Your task to perform on an android device: Clear the shopping cart on target.com. Add macbook air to the cart on target.com Image 0: 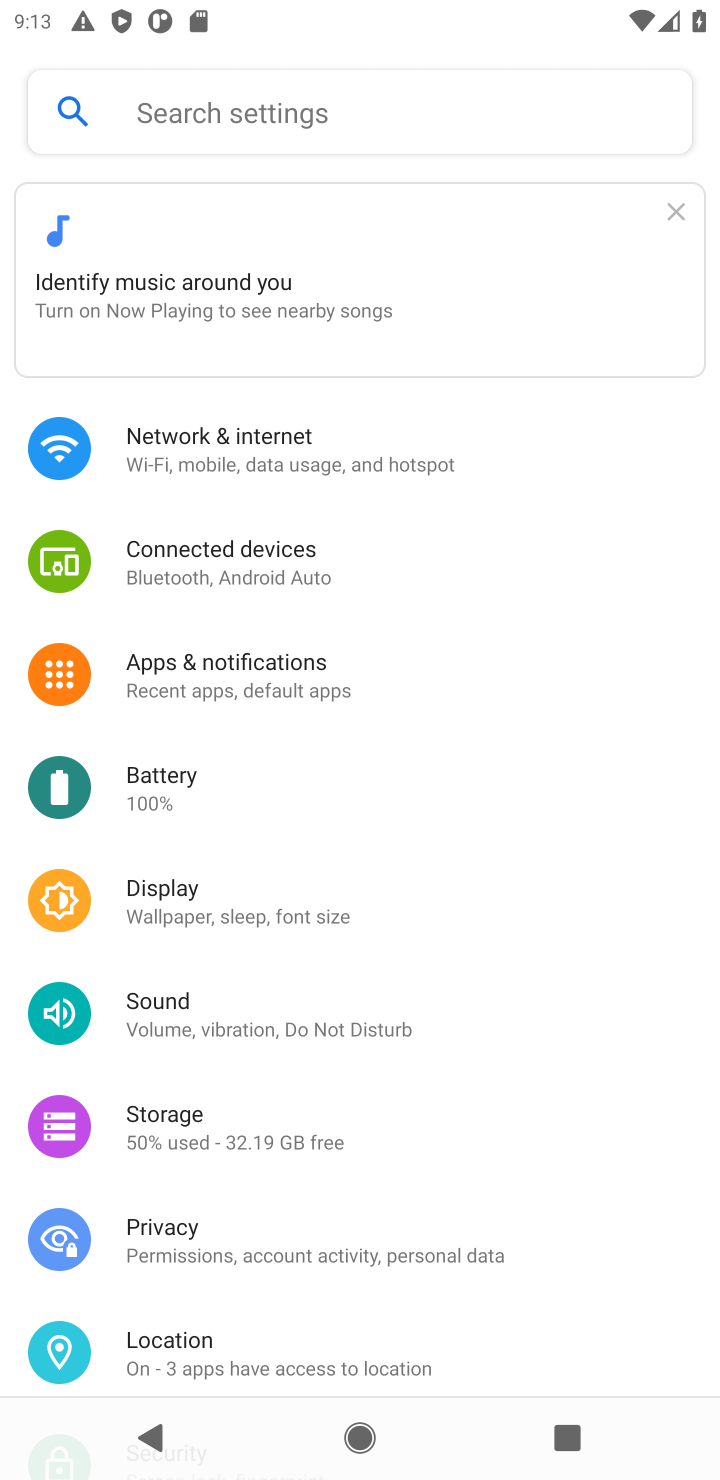
Step 0: press home button
Your task to perform on an android device: Clear the shopping cart on target.com. Add macbook air to the cart on target.com Image 1: 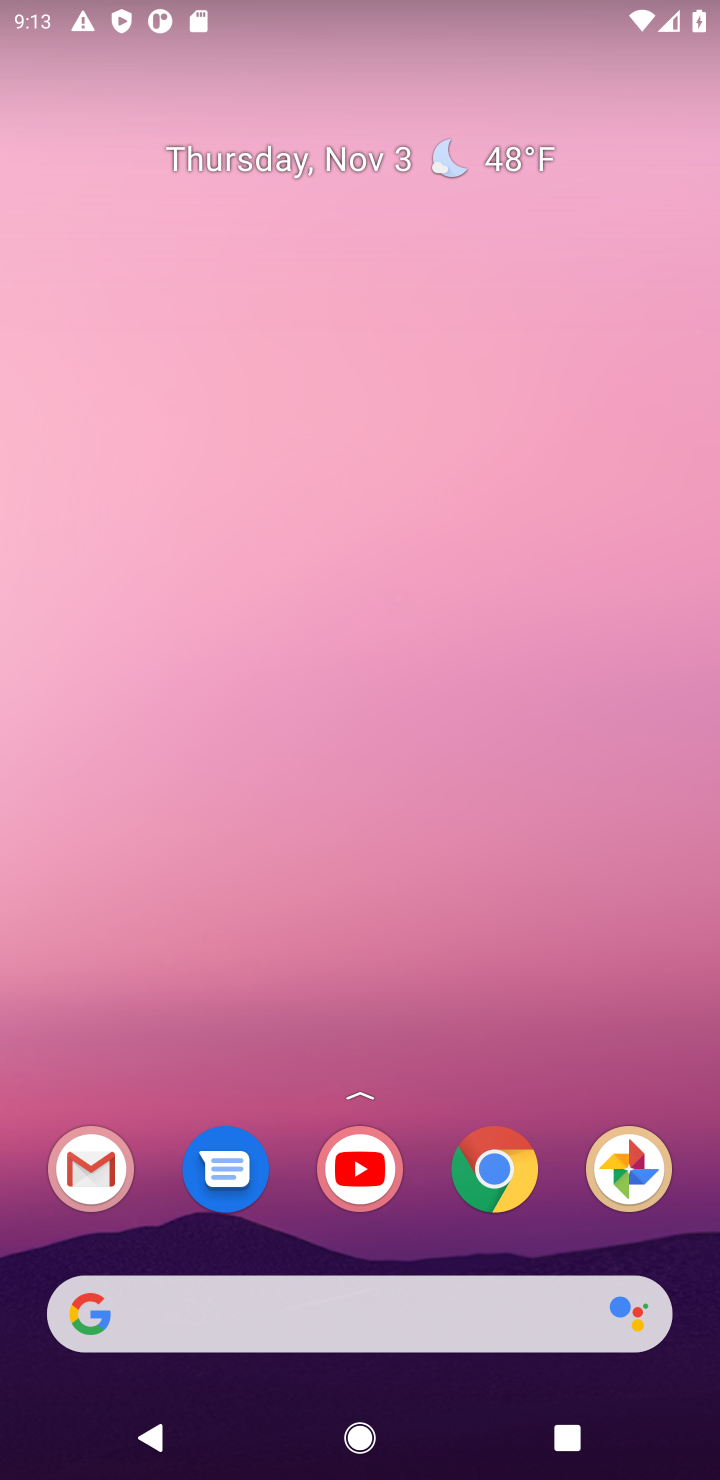
Step 1: drag from (421, 1262) to (283, 235)
Your task to perform on an android device: Clear the shopping cart on target.com. Add macbook air to the cart on target.com Image 2: 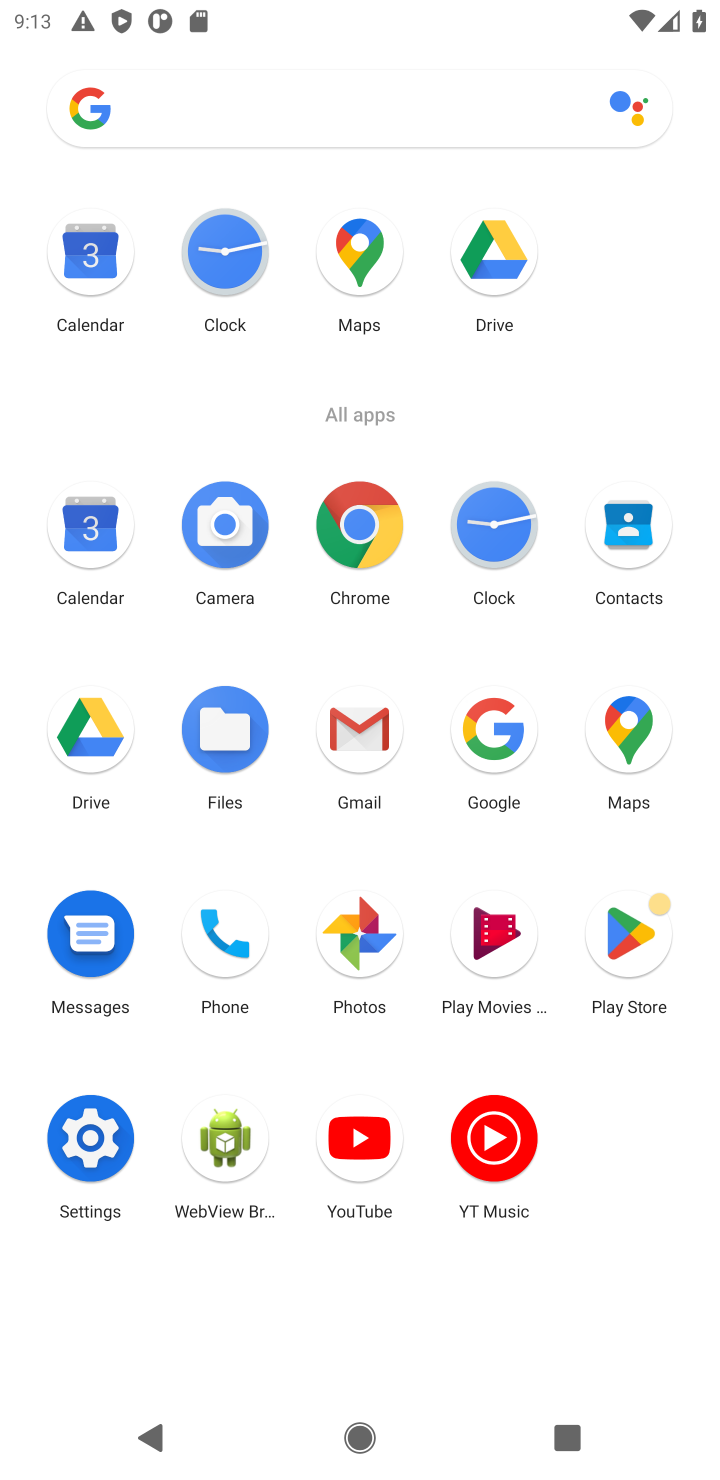
Step 2: click (366, 528)
Your task to perform on an android device: Clear the shopping cart on target.com. Add macbook air to the cart on target.com Image 3: 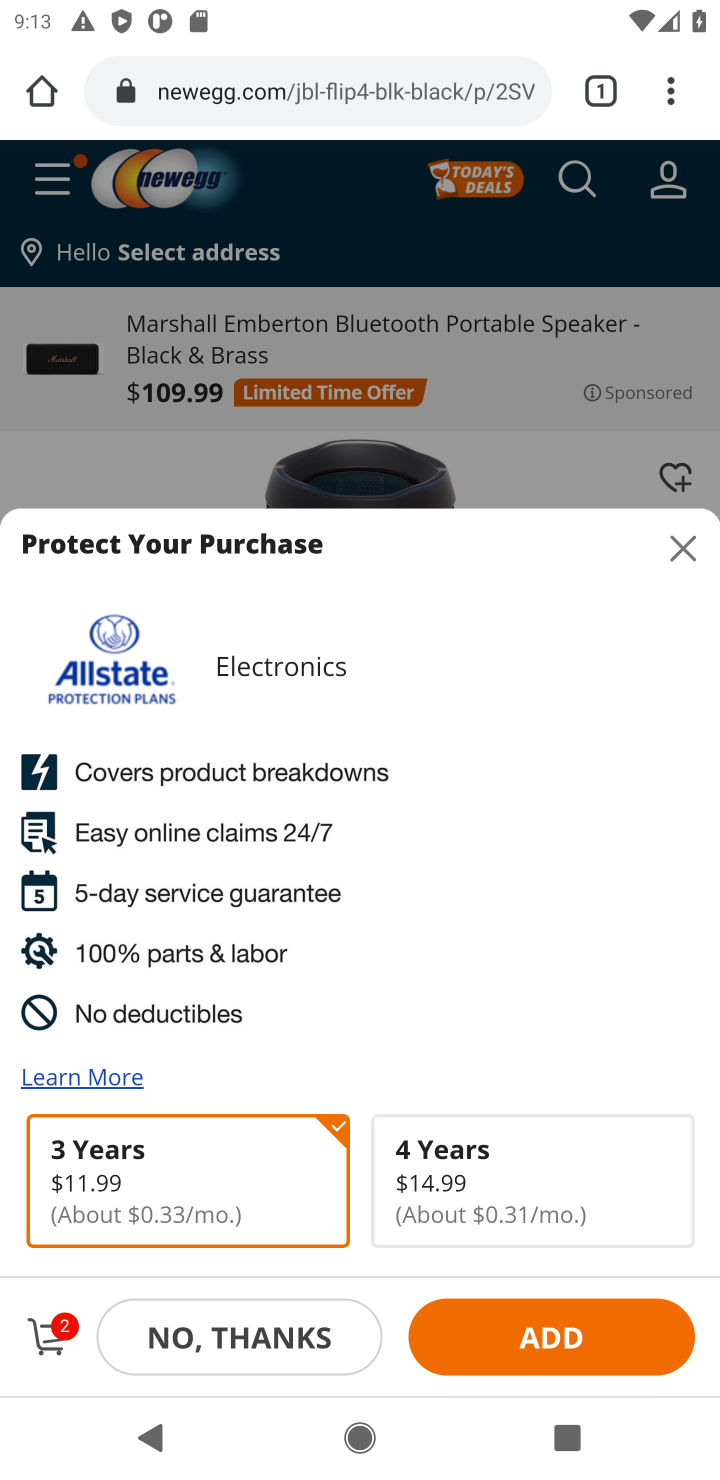
Step 3: click (378, 89)
Your task to perform on an android device: Clear the shopping cart on target.com. Add macbook air to the cart on target.com Image 4: 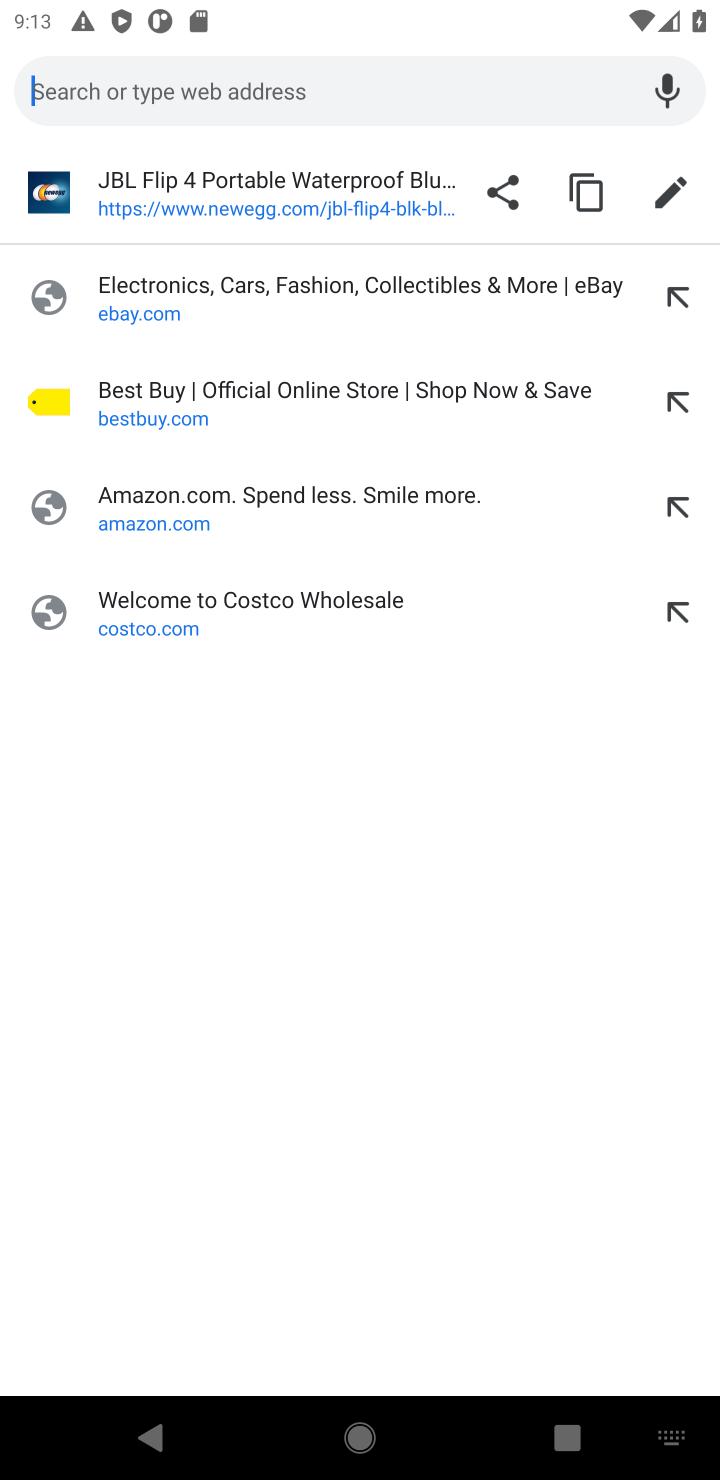
Step 4: type "target.com"
Your task to perform on an android device: Clear the shopping cart on target.com. Add macbook air to the cart on target.com Image 5: 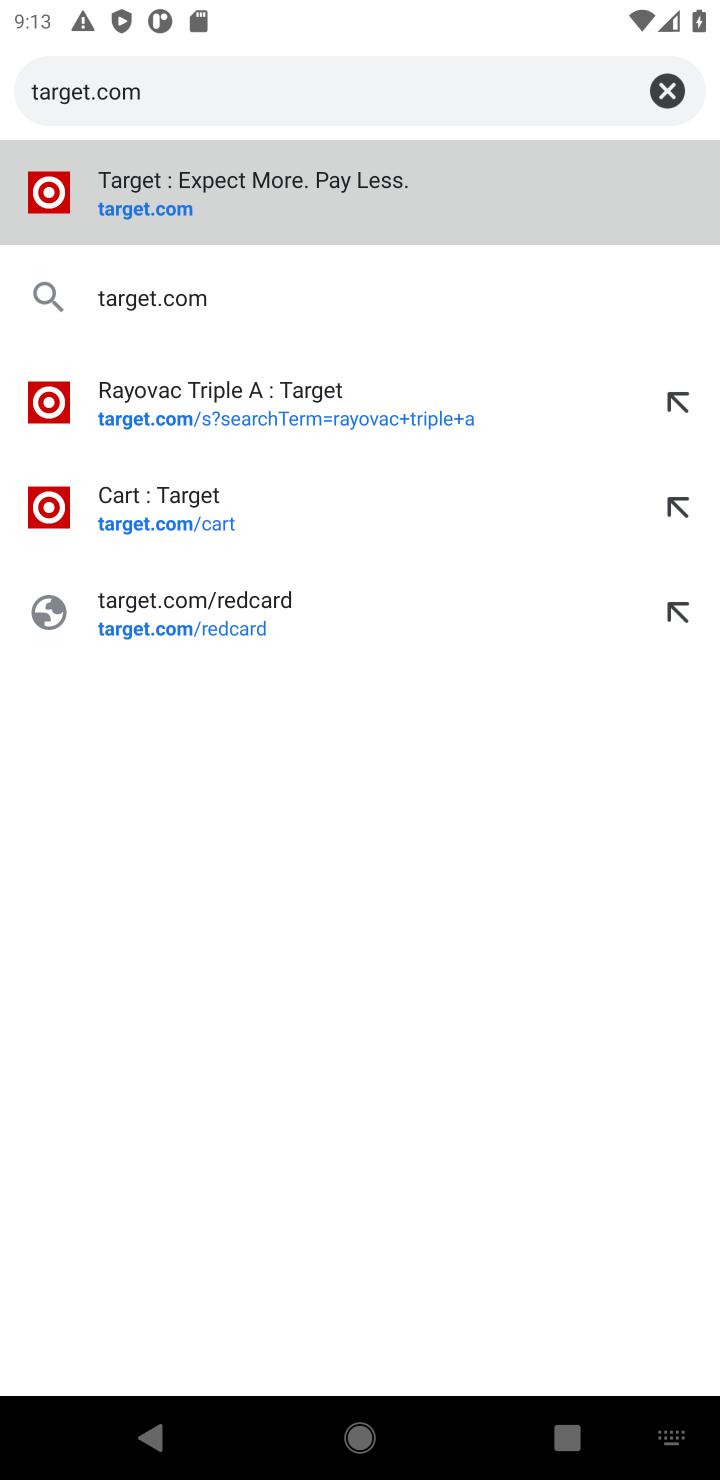
Step 5: press enter
Your task to perform on an android device: Clear the shopping cart on target.com. Add macbook air to the cart on target.com Image 6: 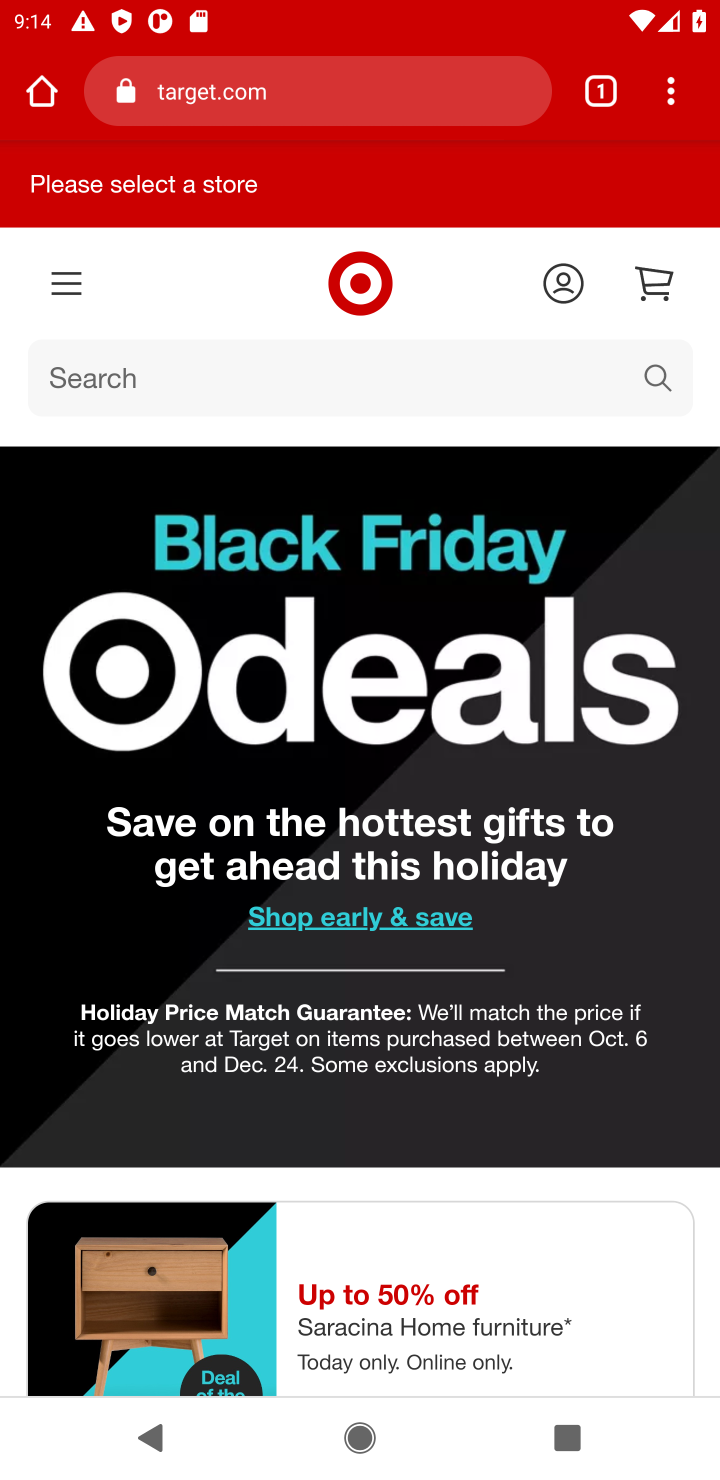
Step 6: click (377, 409)
Your task to perform on an android device: Clear the shopping cart on target.com. Add macbook air to the cart on target.com Image 7: 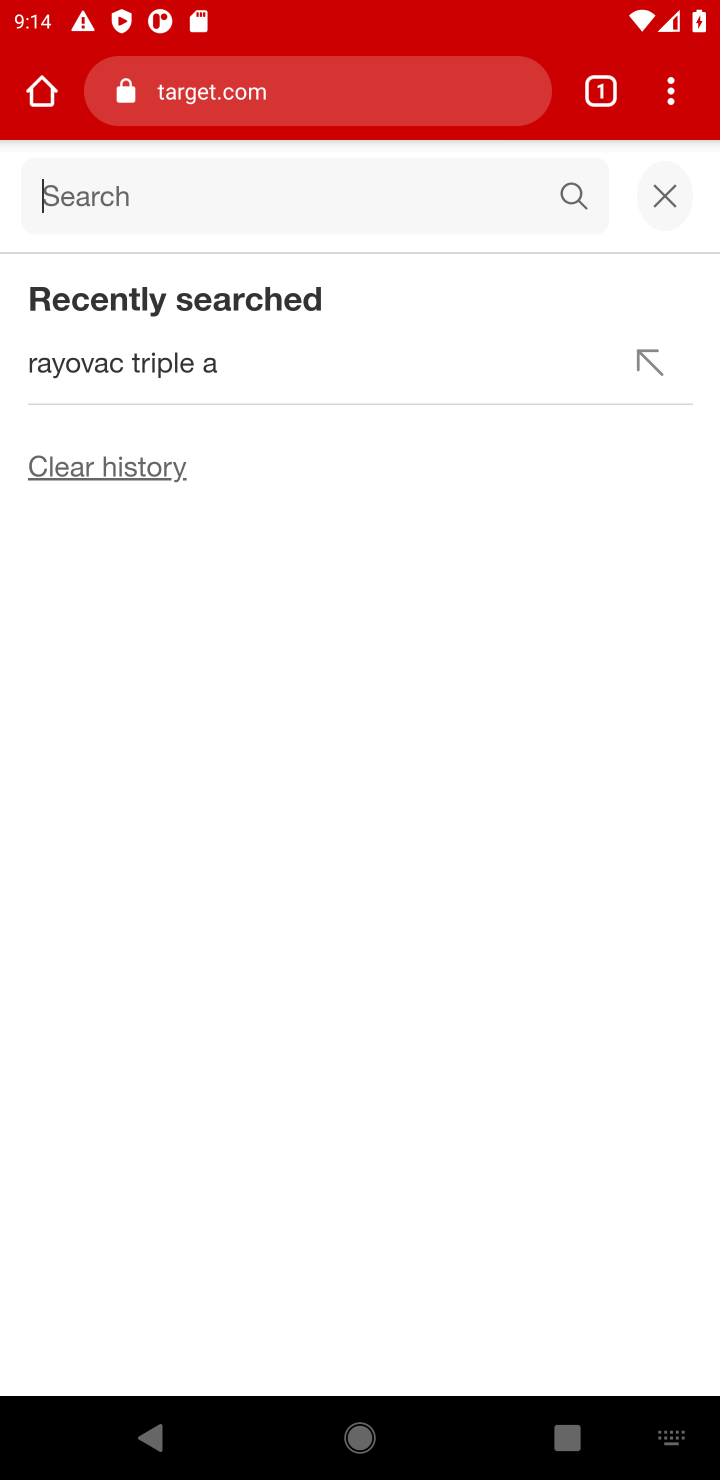
Step 7: click (668, 203)
Your task to perform on an android device: Clear the shopping cart on target.com. Add macbook air to the cart on target.com Image 8: 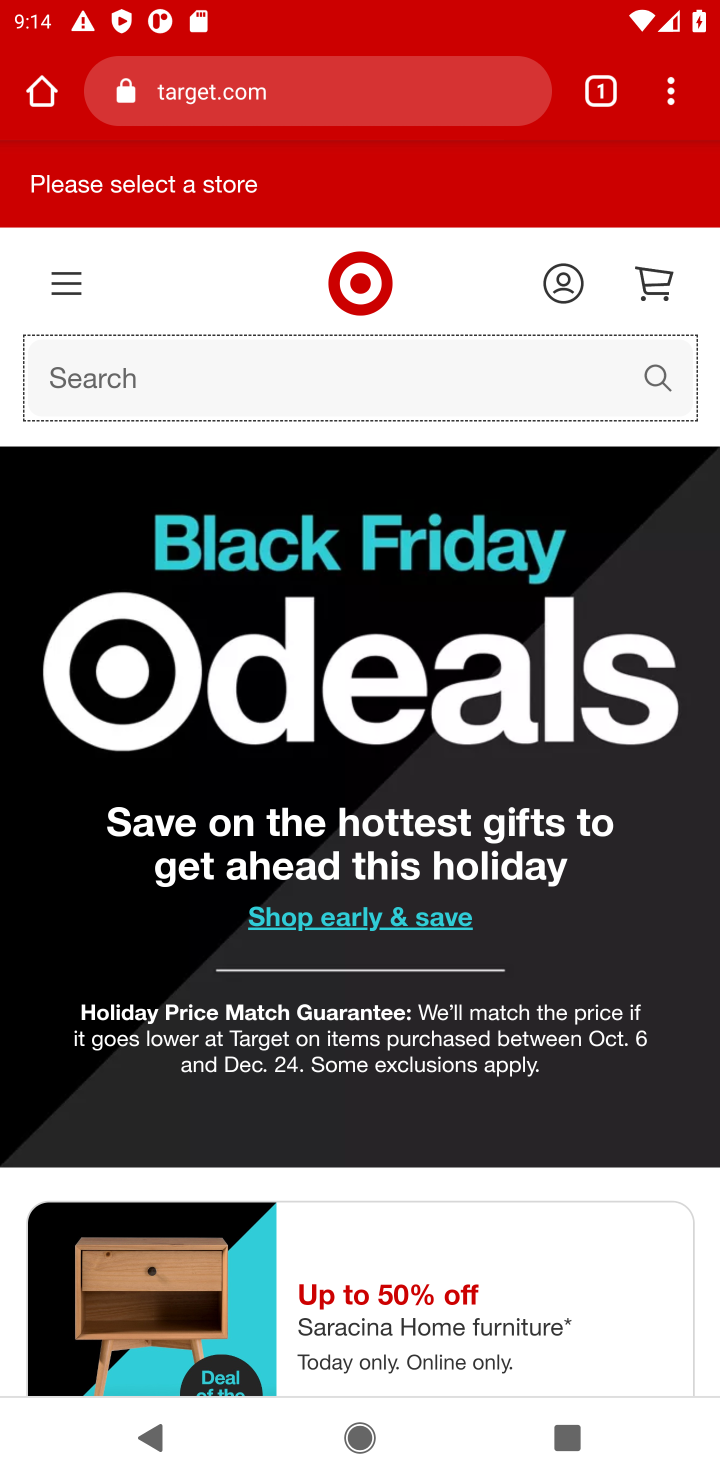
Step 8: click (662, 281)
Your task to perform on an android device: Clear the shopping cart on target.com. Add macbook air to the cart on target.com Image 9: 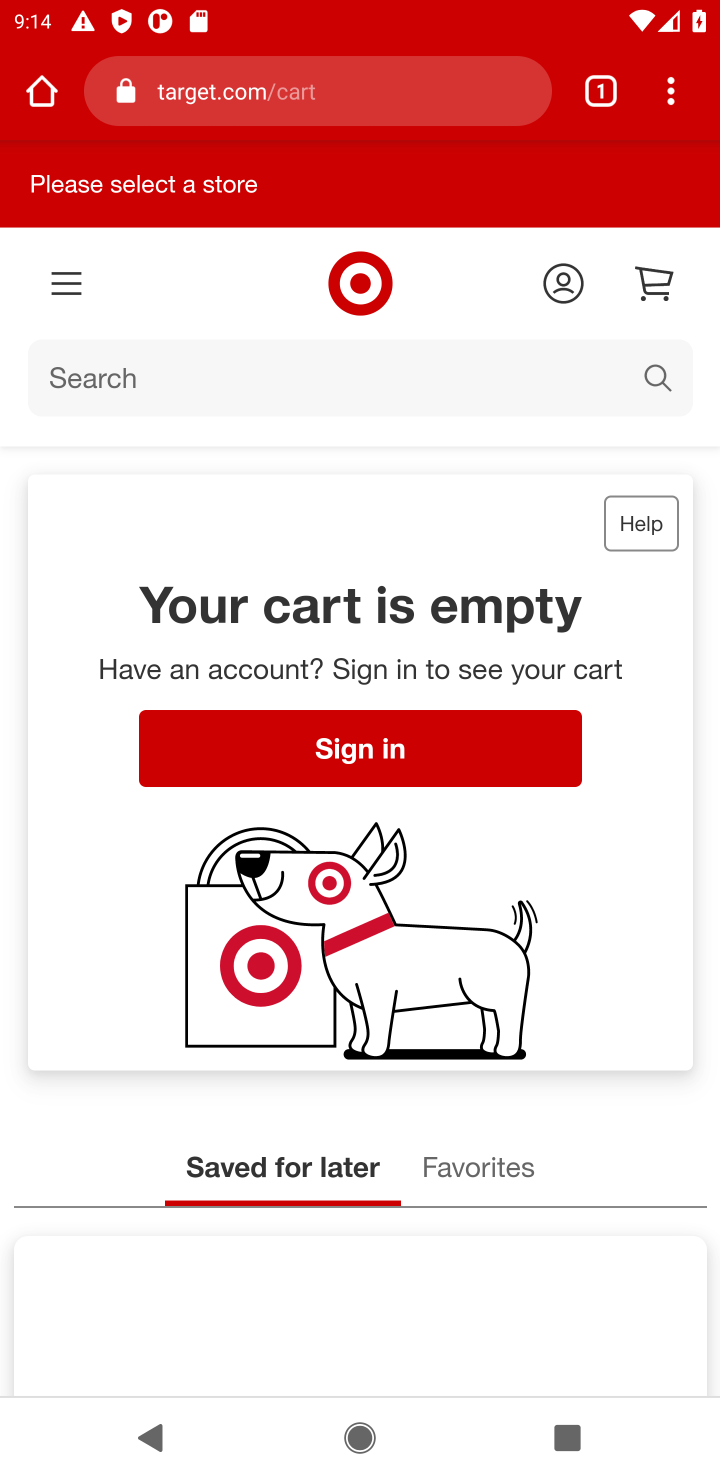
Step 9: click (156, 369)
Your task to perform on an android device: Clear the shopping cart on target.com. Add macbook air to the cart on target.com Image 10: 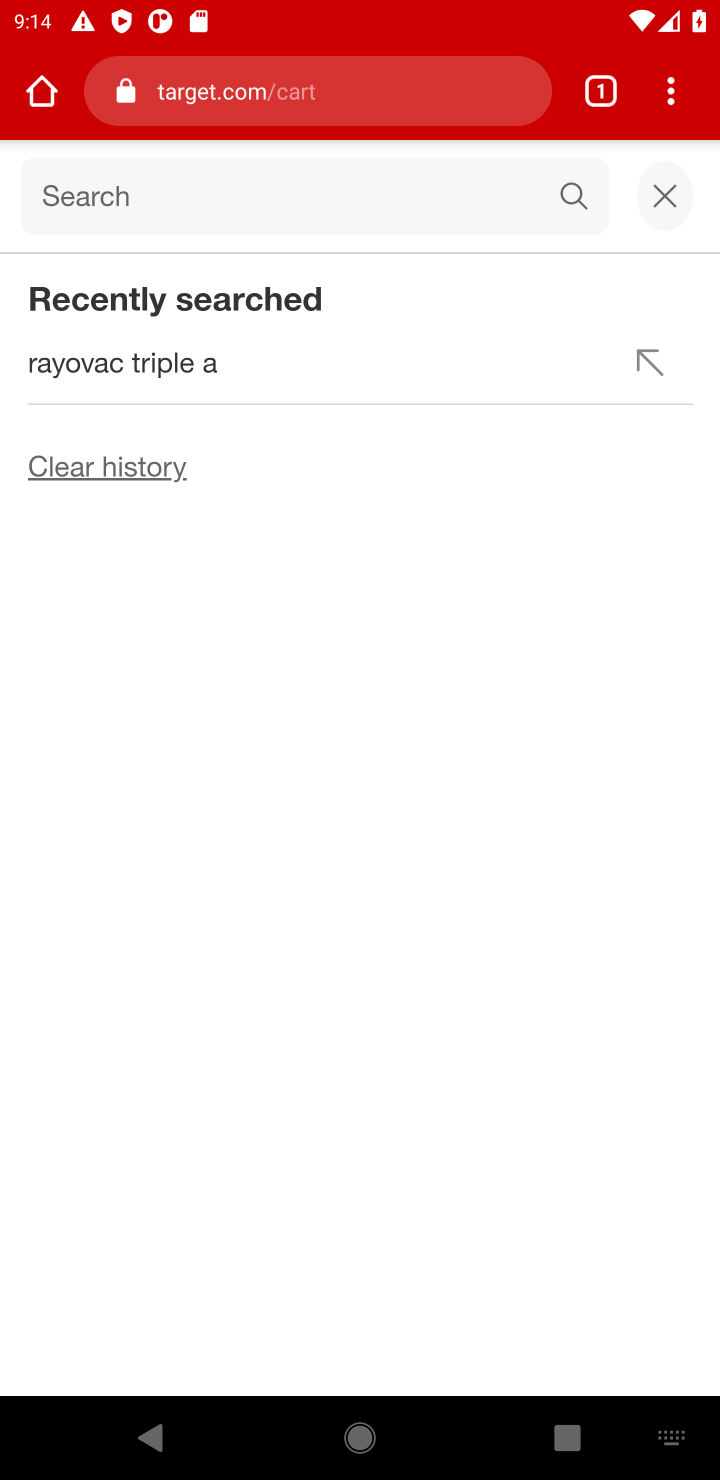
Step 10: type "macbook air"
Your task to perform on an android device: Clear the shopping cart on target.com. Add macbook air to the cart on target.com Image 11: 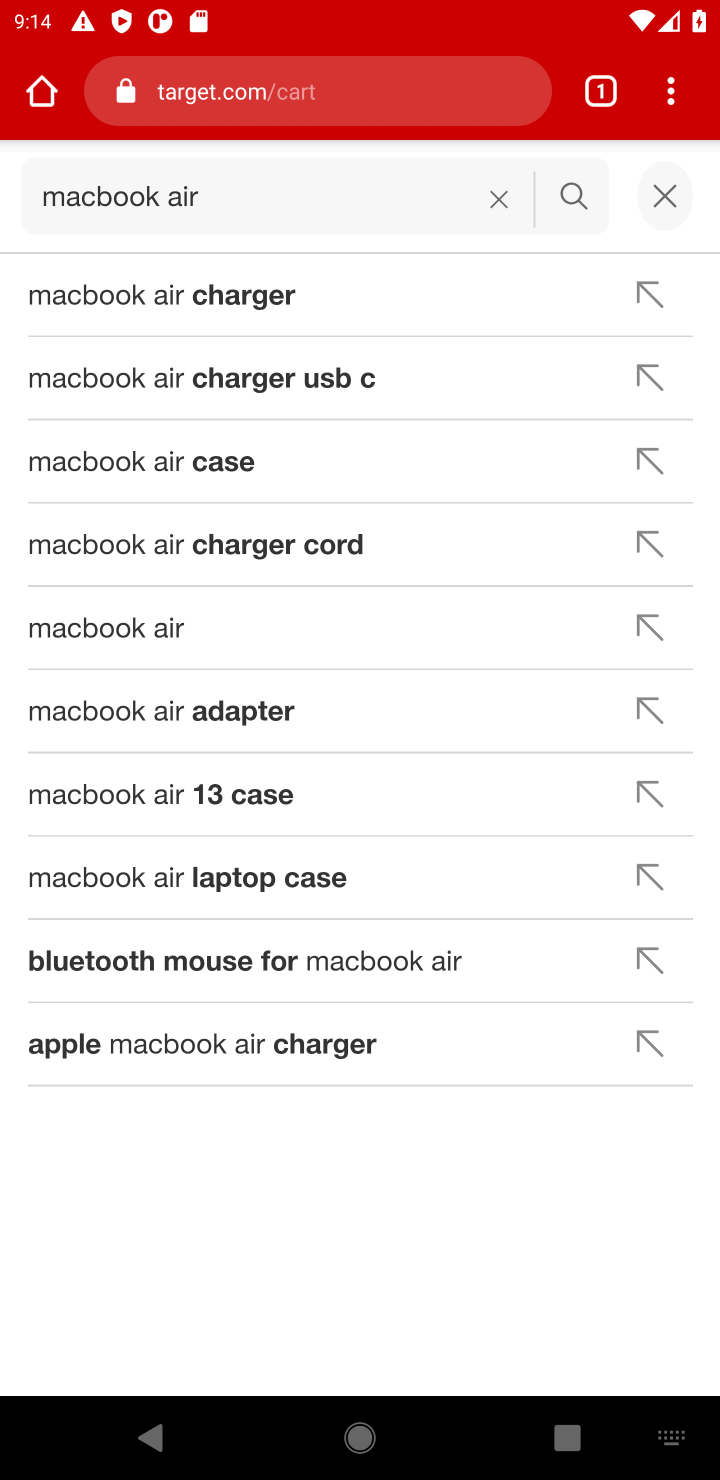
Step 11: press enter
Your task to perform on an android device: Clear the shopping cart on target.com. Add macbook air to the cart on target.com Image 12: 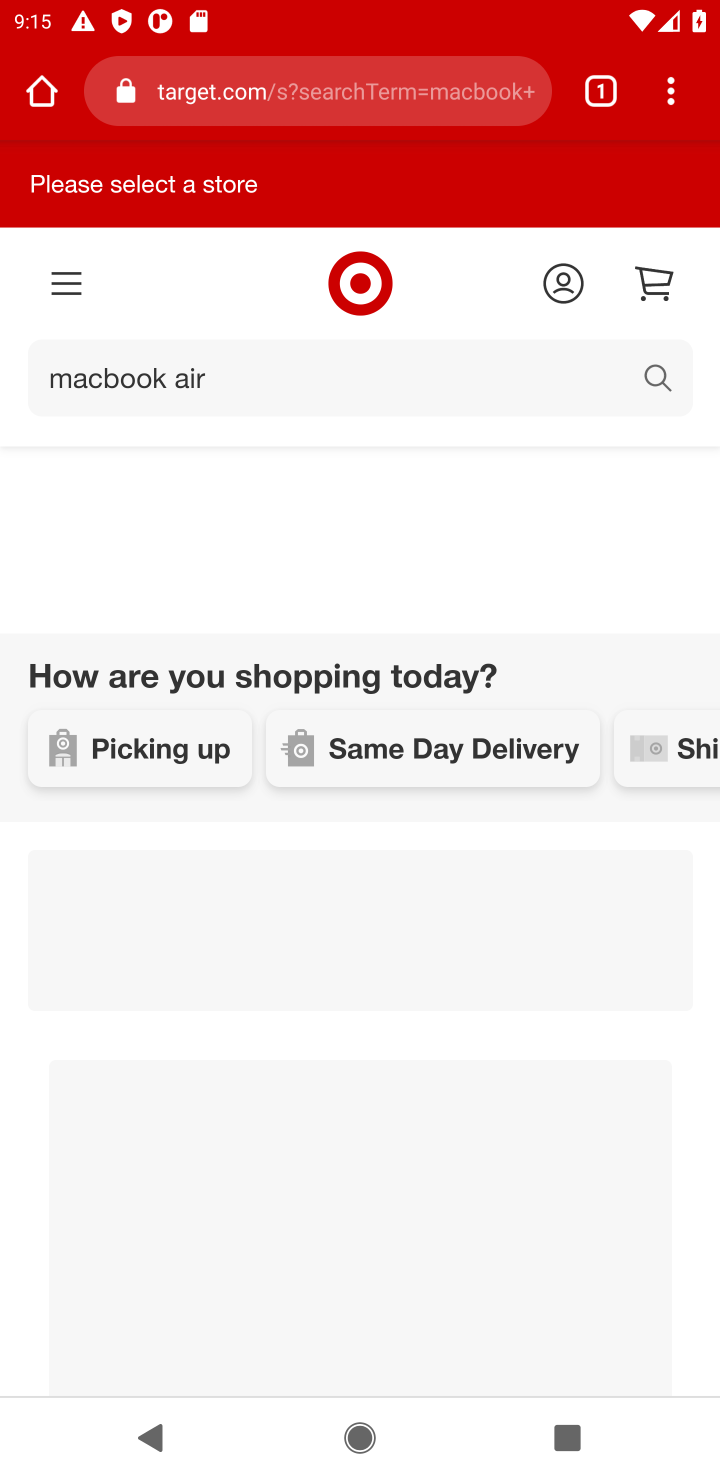
Step 12: task complete